Your task to perform on an android device: open wifi settings Image 0: 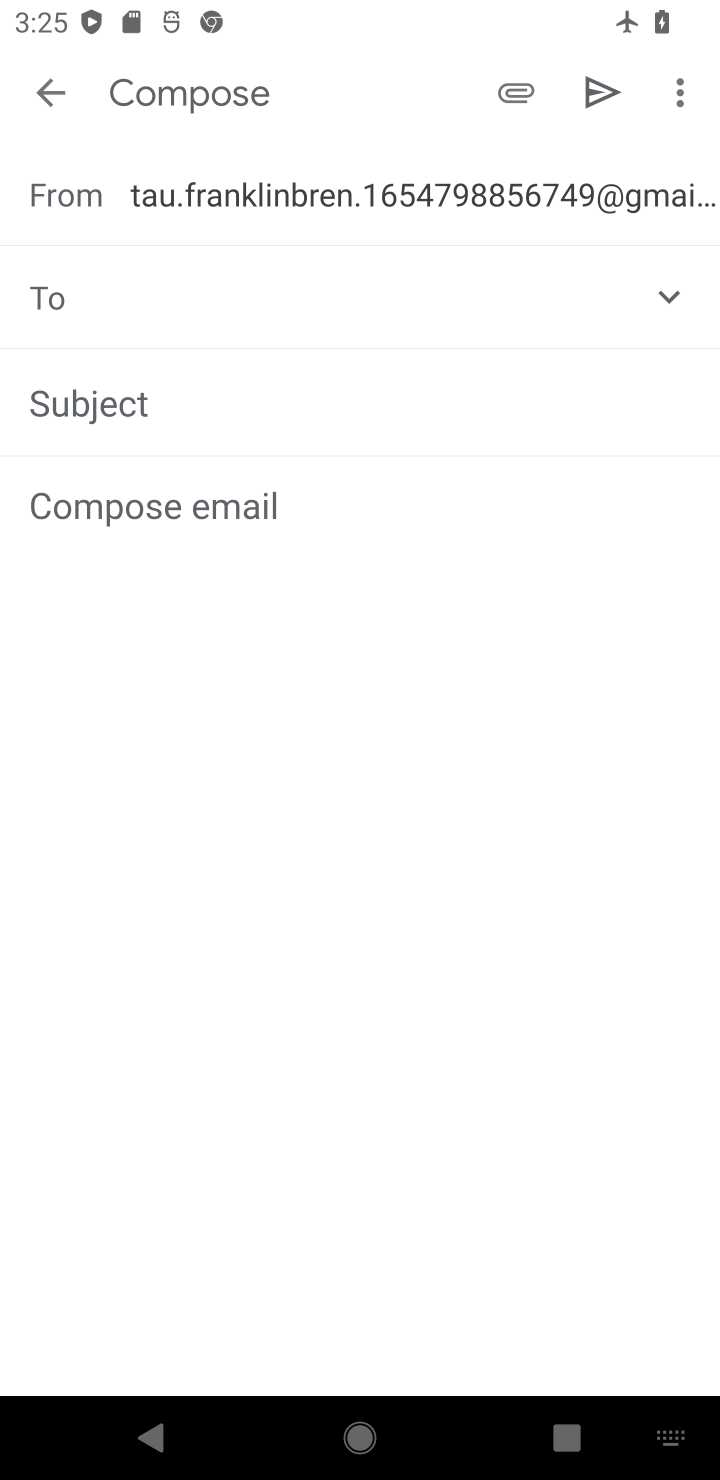
Step 0: press home button
Your task to perform on an android device: open wifi settings Image 1: 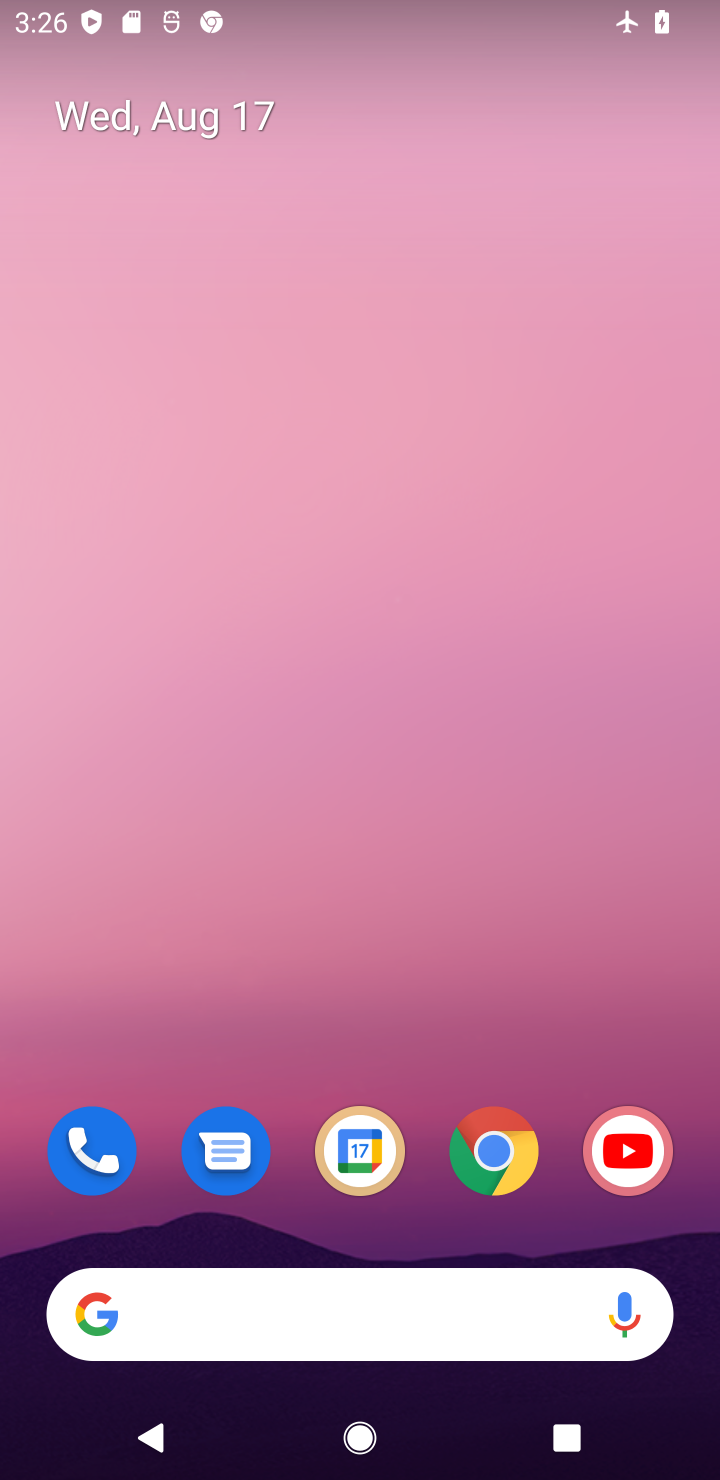
Step 1: drag from (333, 1085) to (345, 0)
Your task to perform on an android device: open wifi settings Image 2: 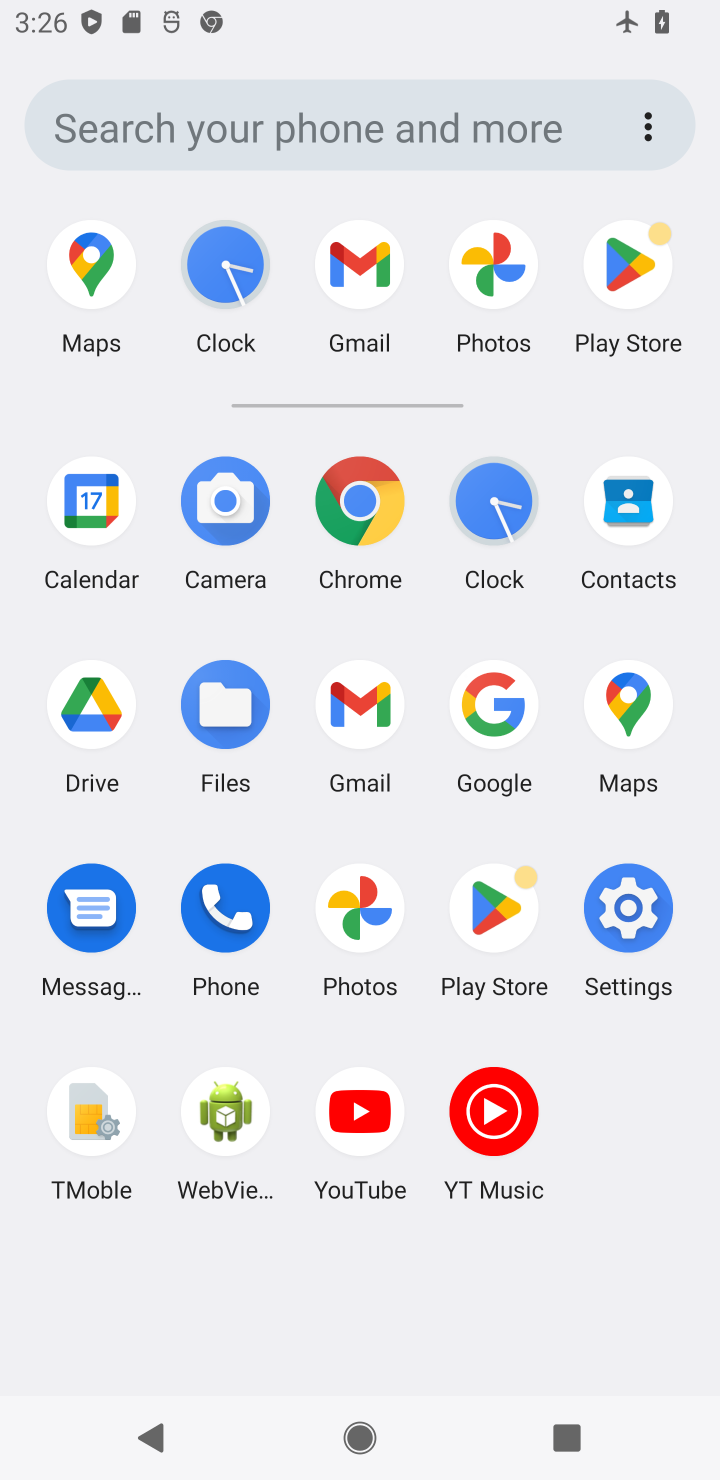
Step 2: click (641, 907)
Your task to perform on an android device: open wifi settings Image 3: 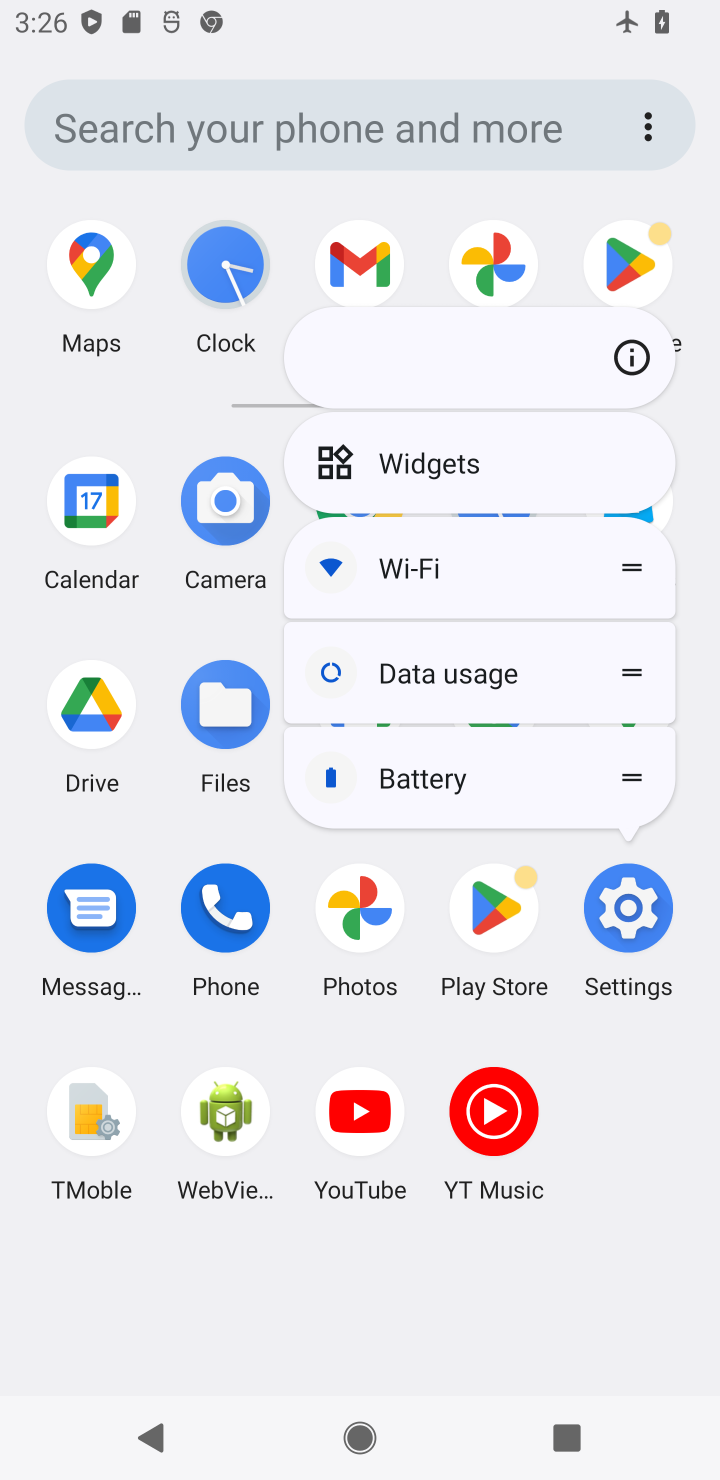
Step 3: click (641, 907)
Your task to perform on an android device: open wifi settings Image 4: 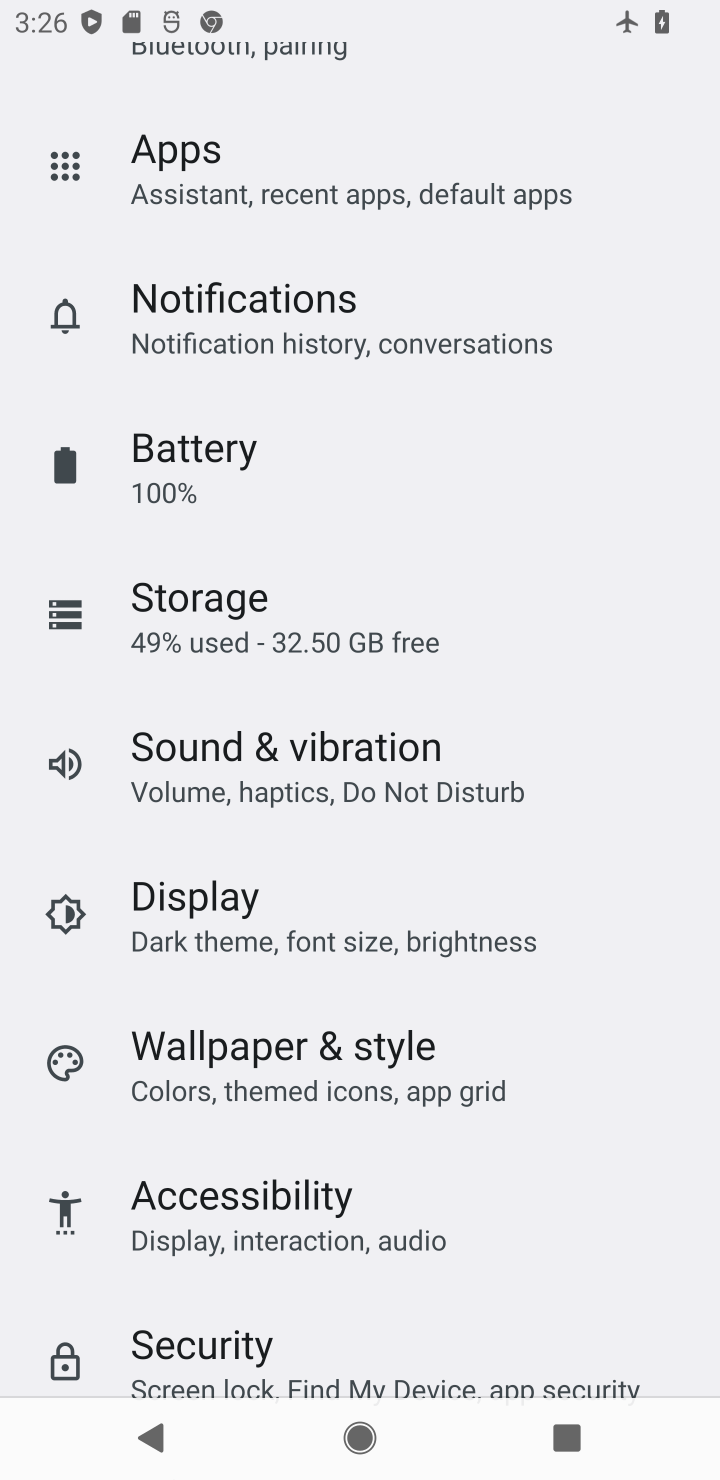
Step 4: drag from (318, 253) to (373, 1242)
Your task to perform on an android device: open wifi settings Image 5: 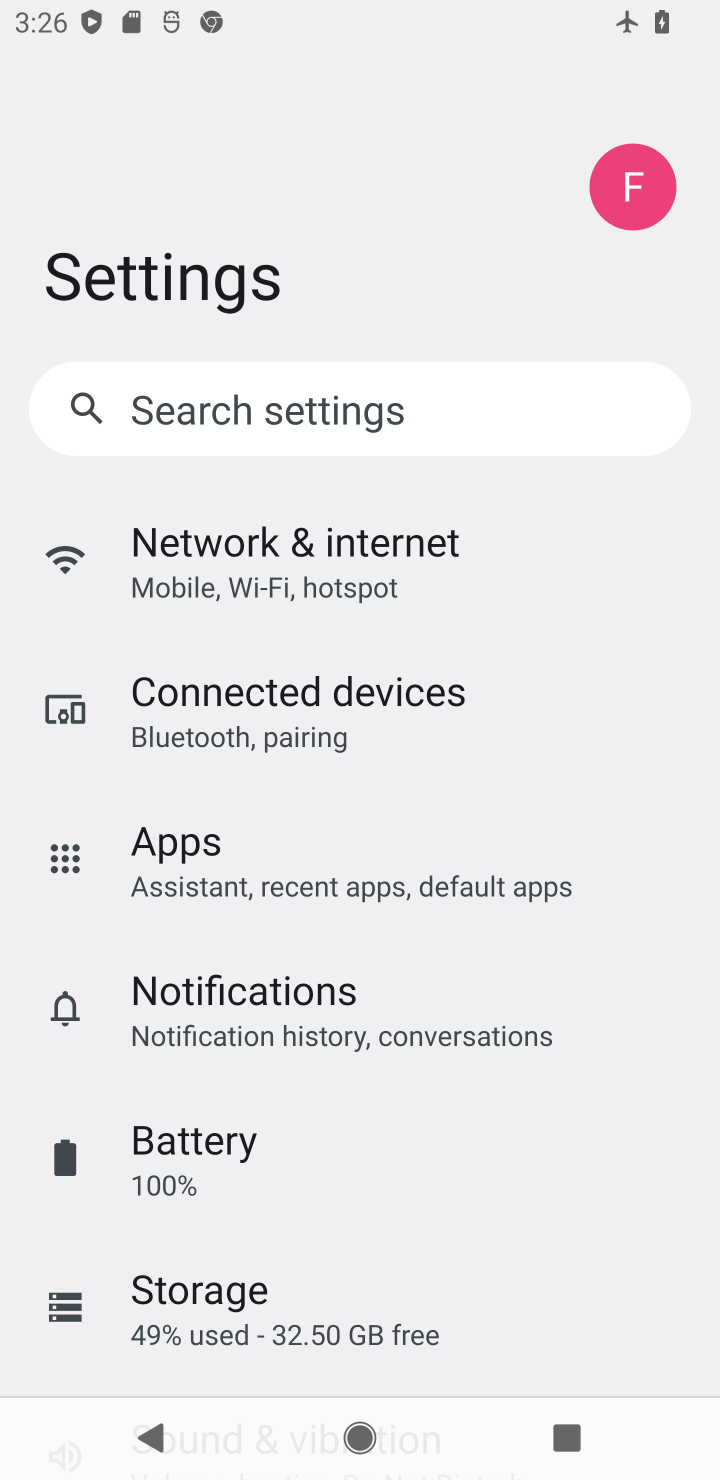
Step 5: click (312, 542)
Your task to perform on an android device: open wifi settings Image 6: 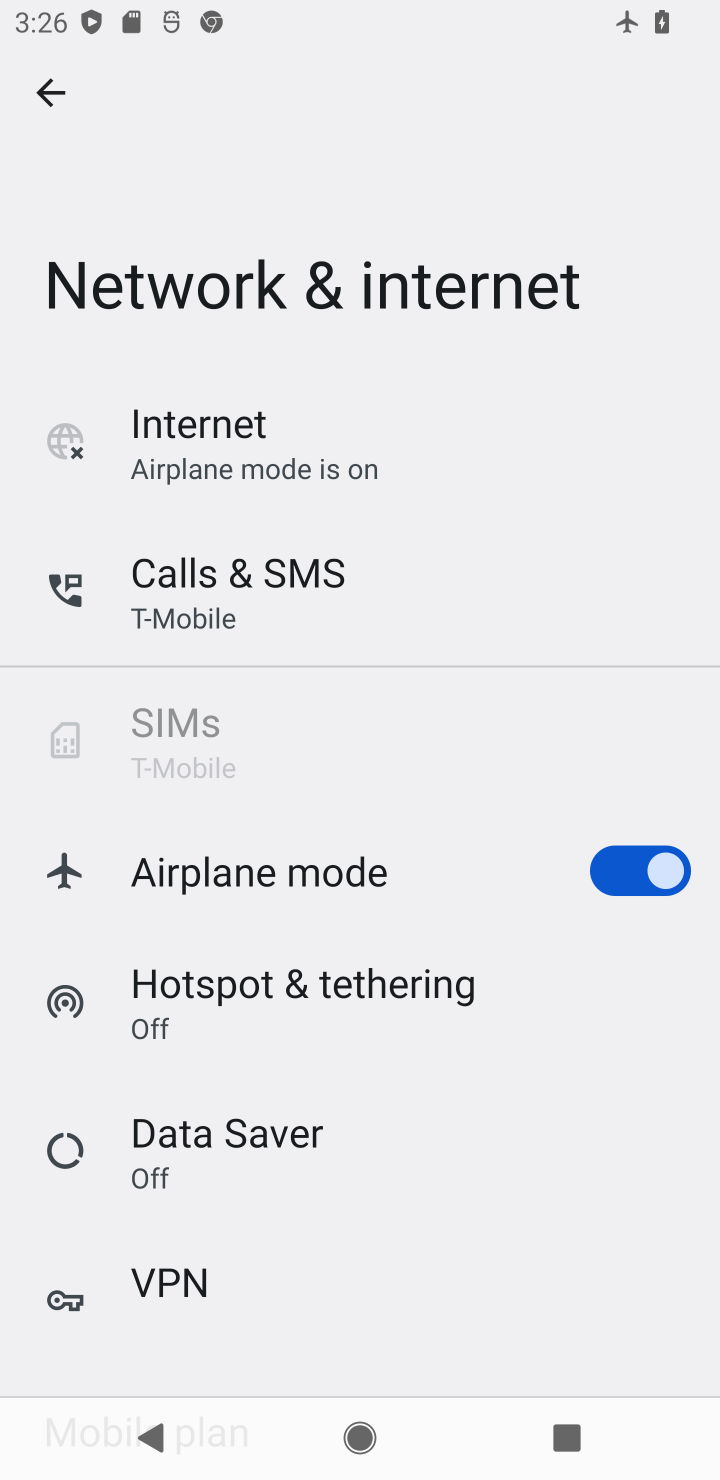
Step 6: click (233, 443)
Your task to perform on an android device: open wifi settings Image 7: 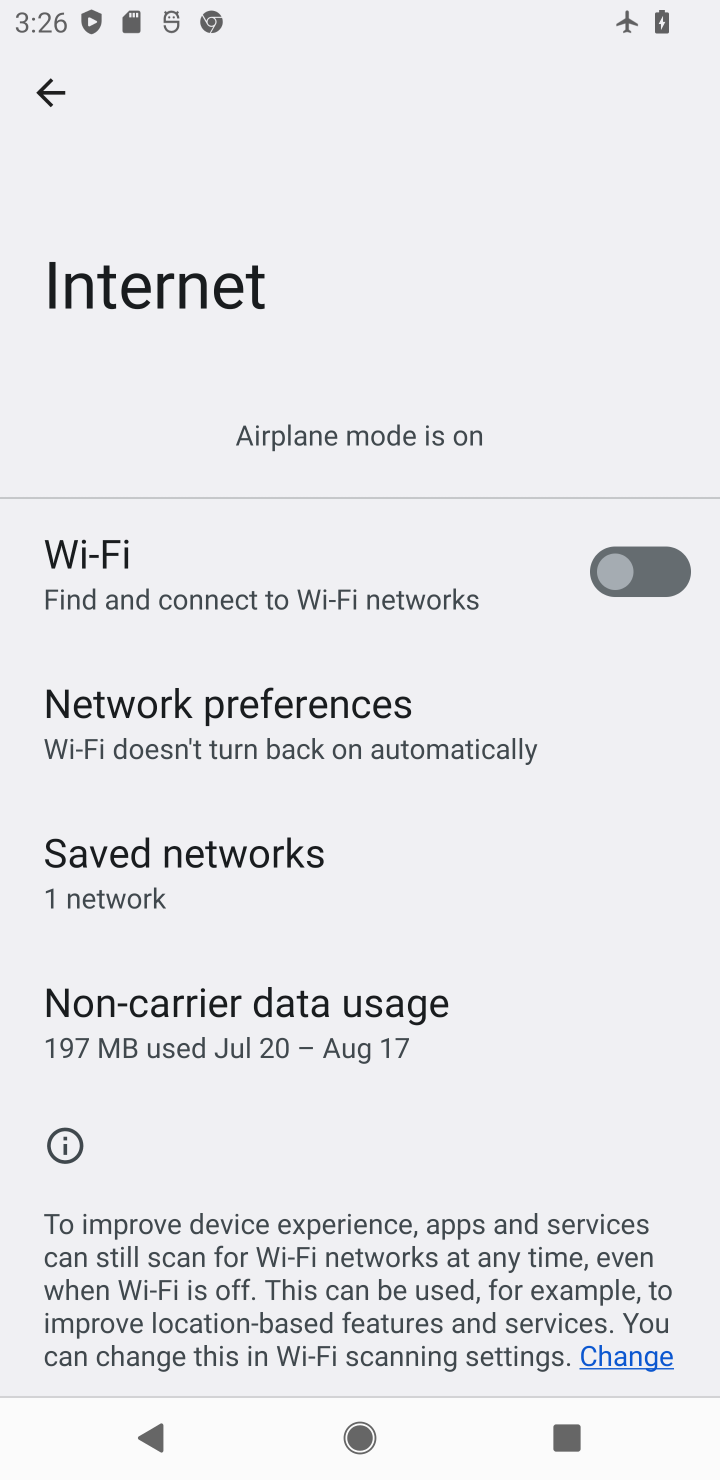
Step 7: click (459, 582)
Your task to perform on an android device: open wifi settings Image 8: 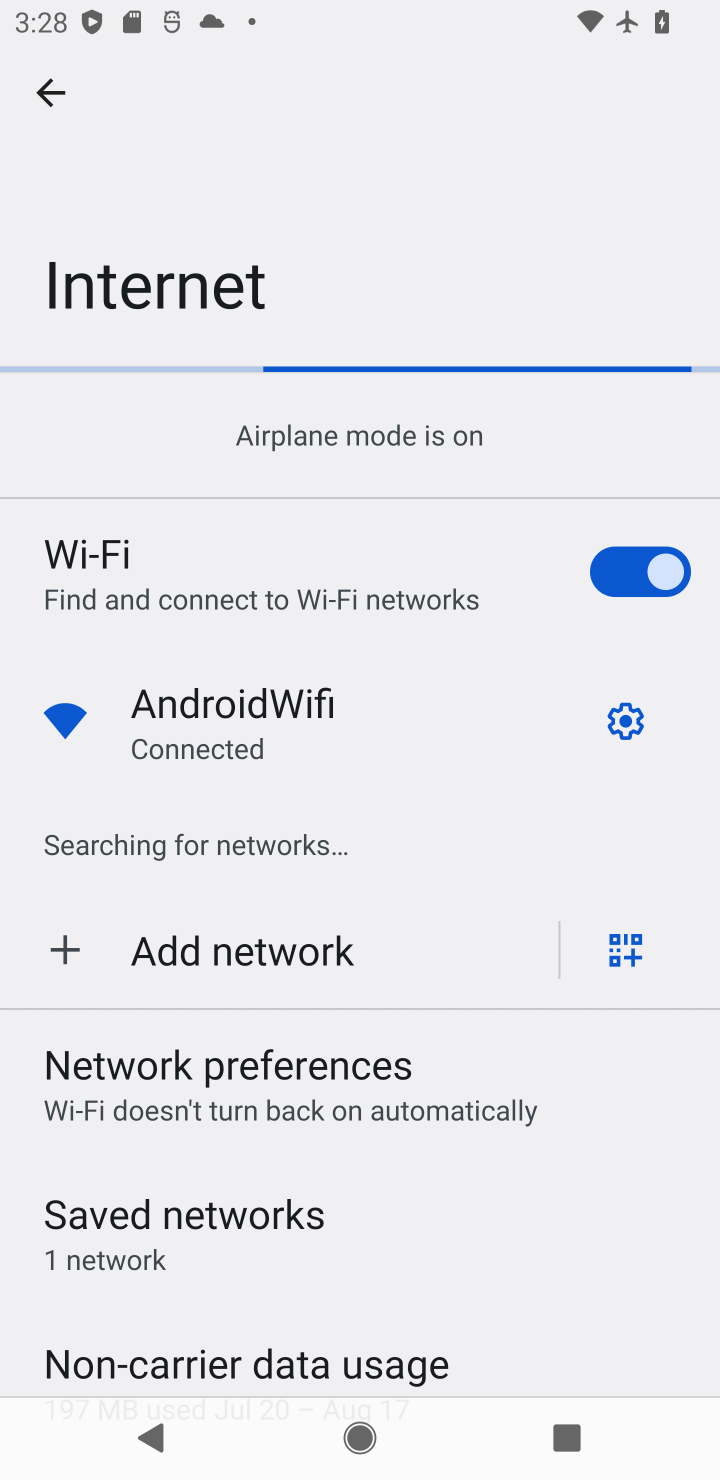
Step 8: task complete